Your task to perform on an android device: Go to CNN.com Image 0: 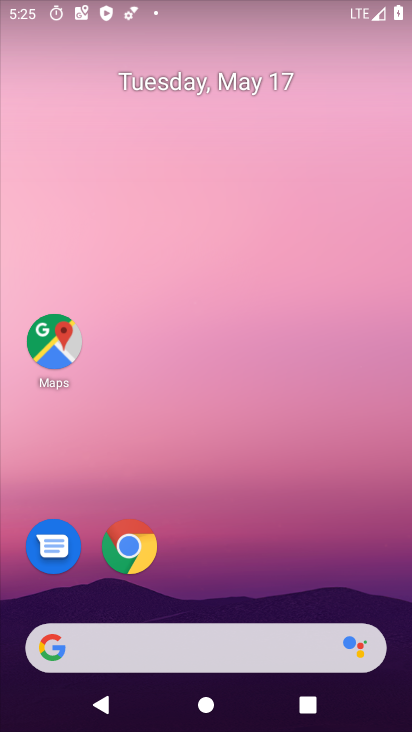
Step 0: drag from (232, 586) to (359, 58)
Your task to perform on an android device: Go to CNN.com Image 1: 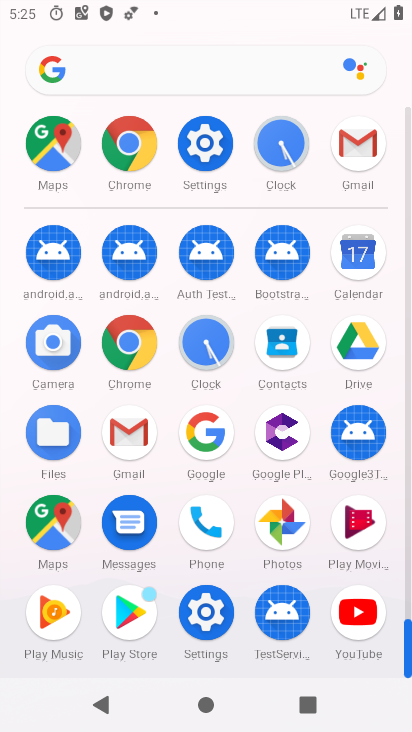
Step 1: click (117, 186)
Your task to perform on an android device: Go to CNN.com Image 2: 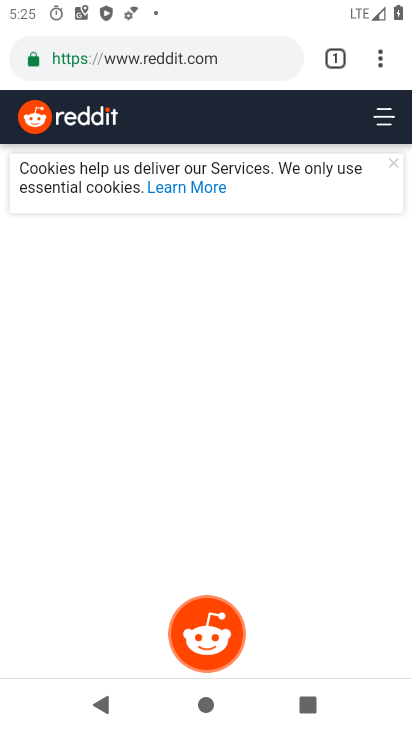
Step 2: click (217, 57)
Your task to perform on an android device: Go to CNN.com Image 3: 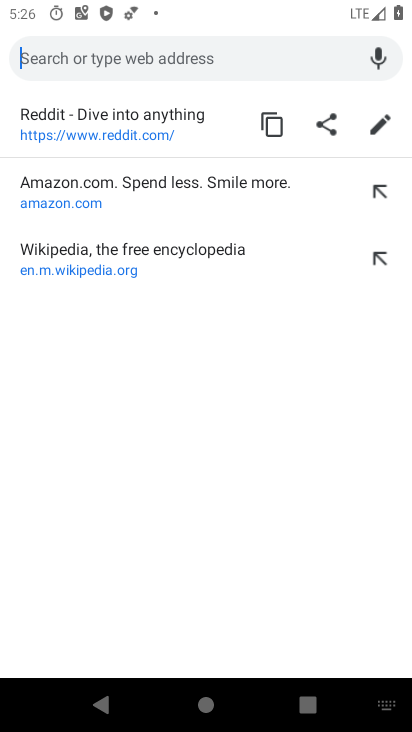
Step 3: type "www.cnn.com"
Your task to perform on an android device: Go to CNN.com Image 4: 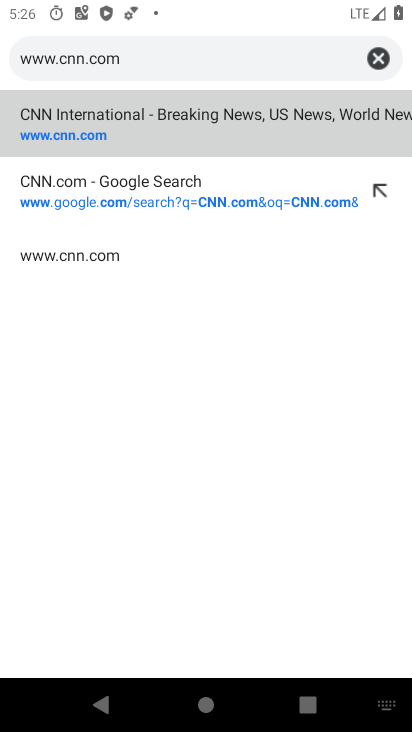
Step 4: click (87, 122)
Your task to perform on an android device: Go to CNN.com Image 5: 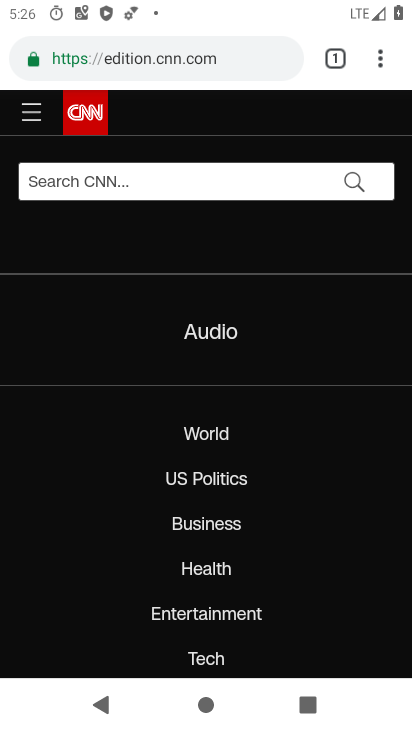
Step 5: task complete